Your task to perform on an android device: Add alienware area 51 to the cart on amazon Image 0: 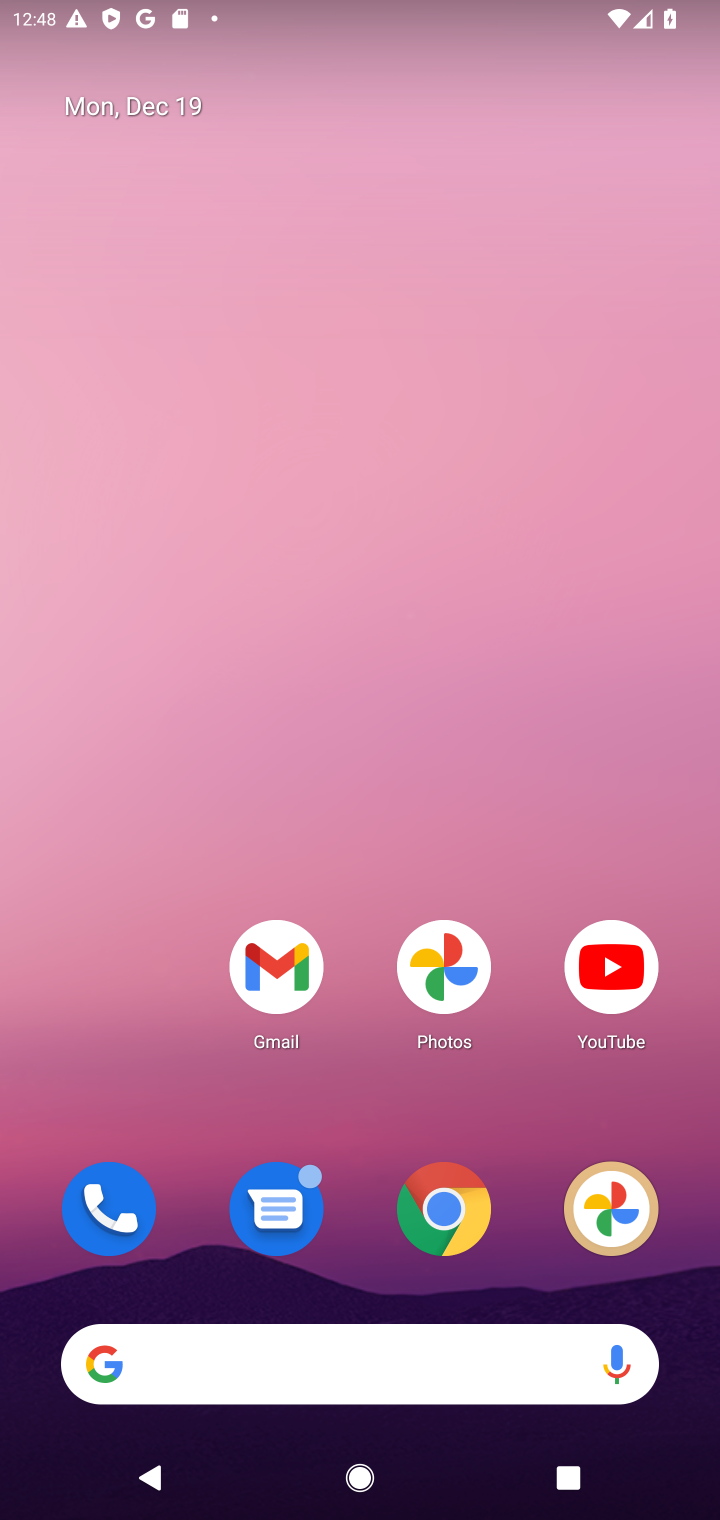
Step 0: click (455, 1186)
Your task to perform on an android device: Add alienware area 51 to the cart on amazon Image 1: 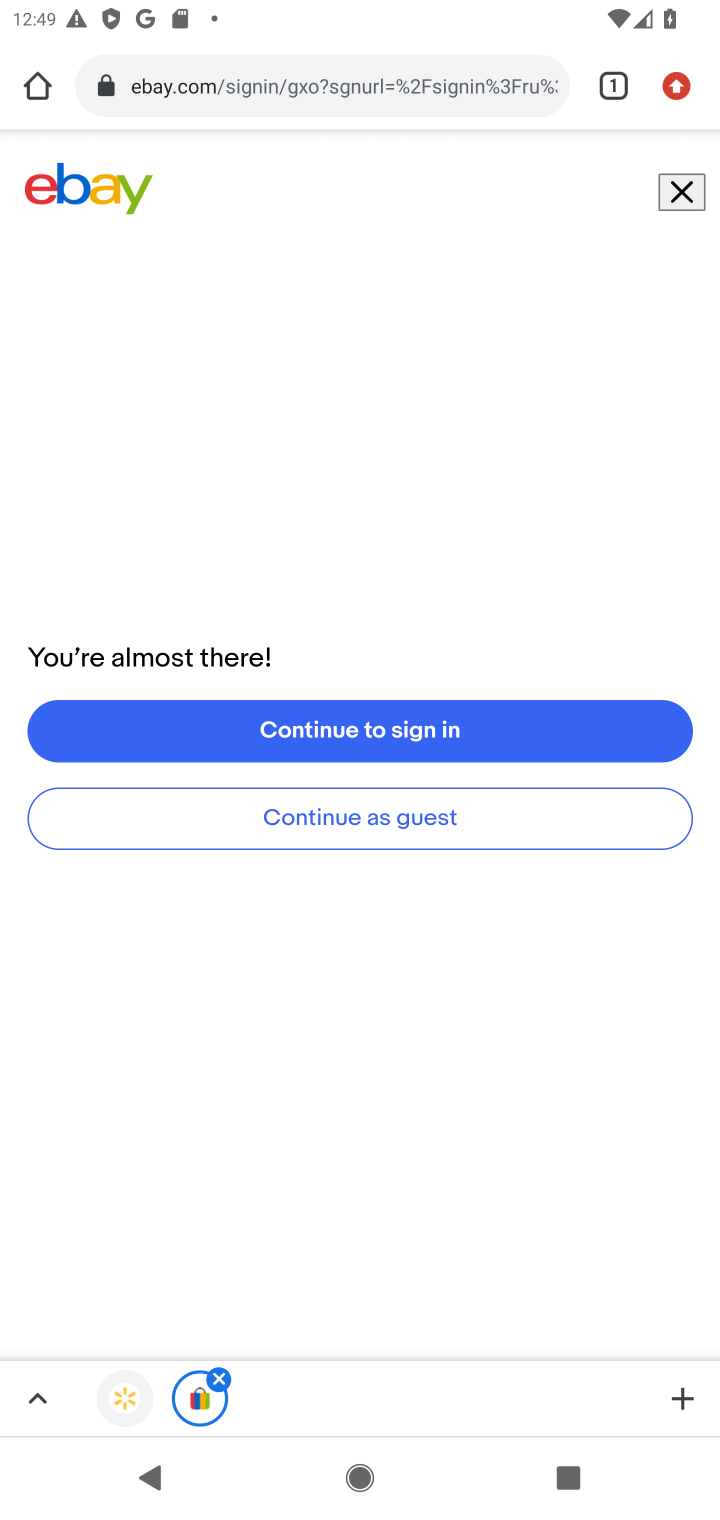
Step 1: click (299, 76)
Your task to perform on an android device: Add alienware area 51 to the cart on amazon Image 2: 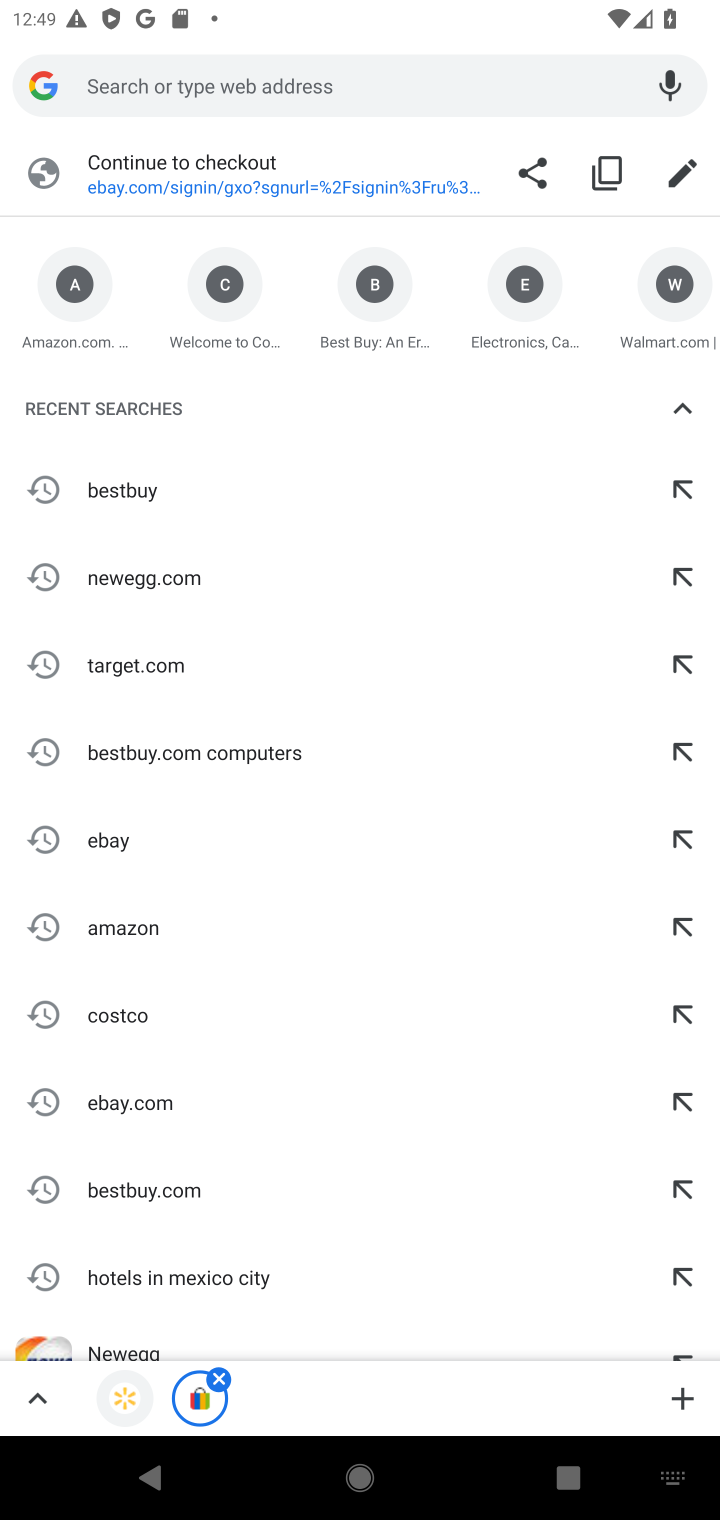
Step 2: type "amazon"
Your task to perform on an android device: Add alienware area 51 to the cart on amazon Image 3: 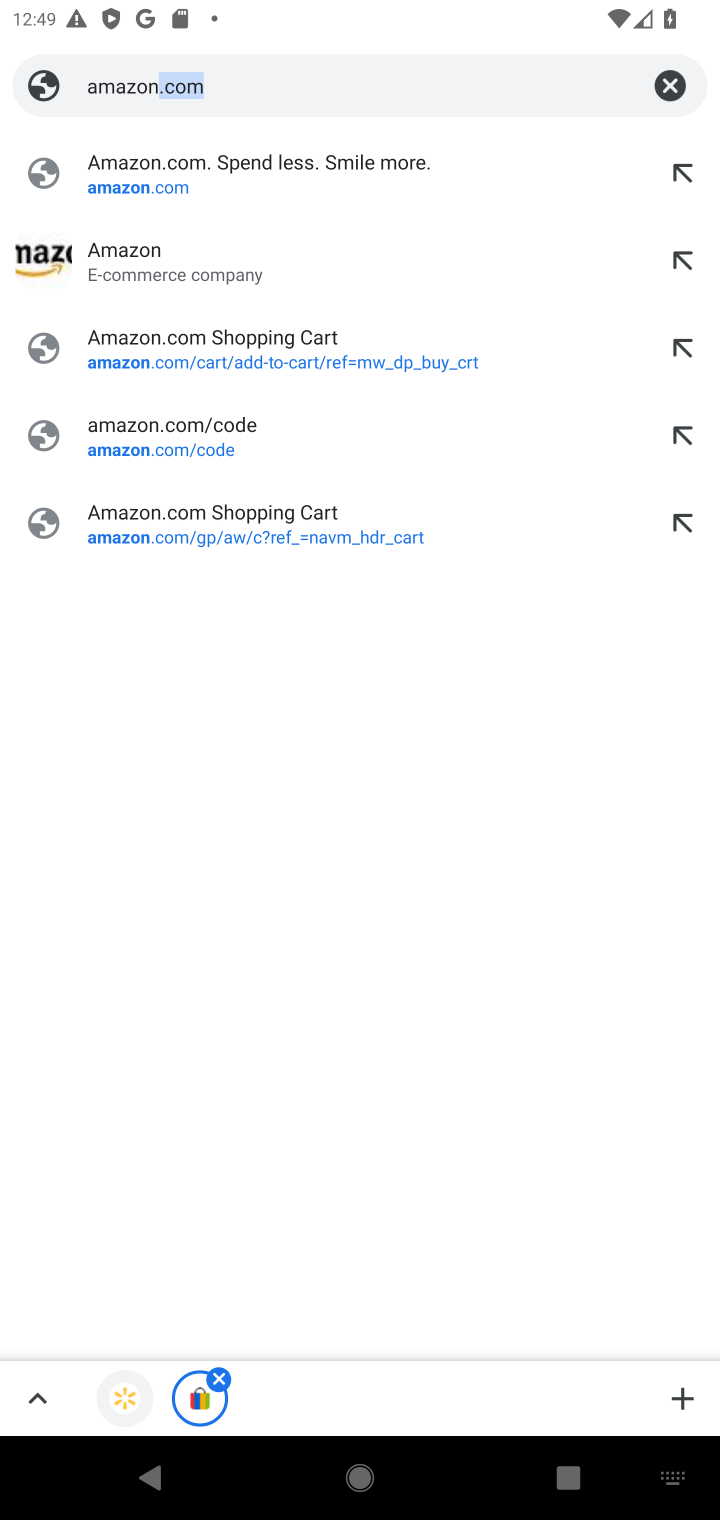
Step 3: click (253, 184)
Your task to perform on an android device: Add alienware area 51 to the cart on amazon Image 4: 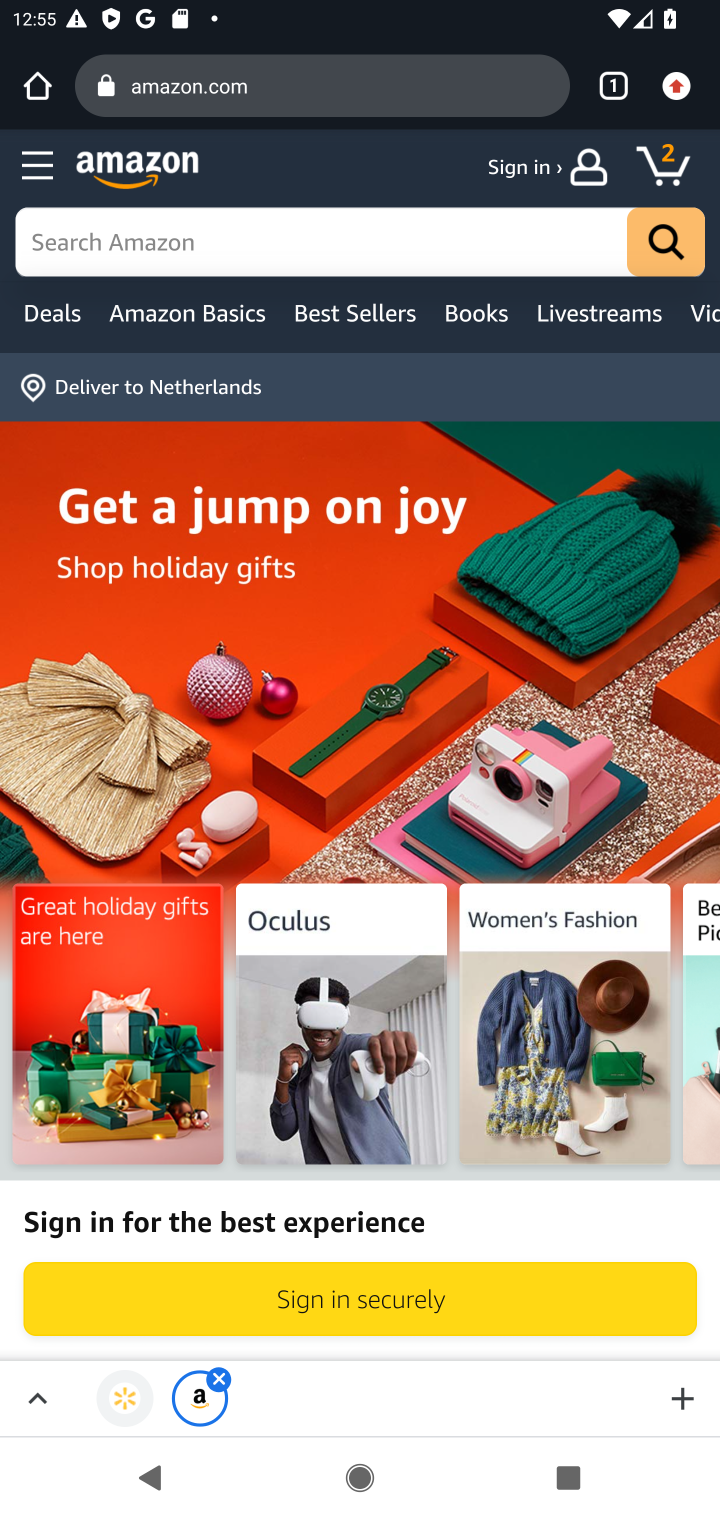
Step 4: task complete